Your task to perform on an android device: check data usage Image 0: 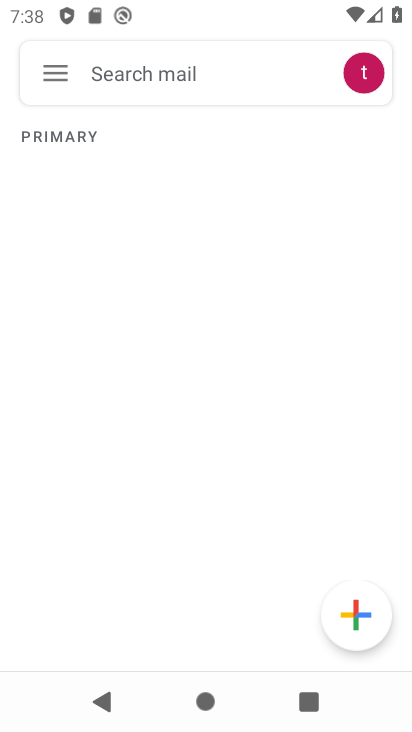
Step 0: drag from (202, 590) to (243, 131)
Your task to perform on an android device: check data usage Image 1: 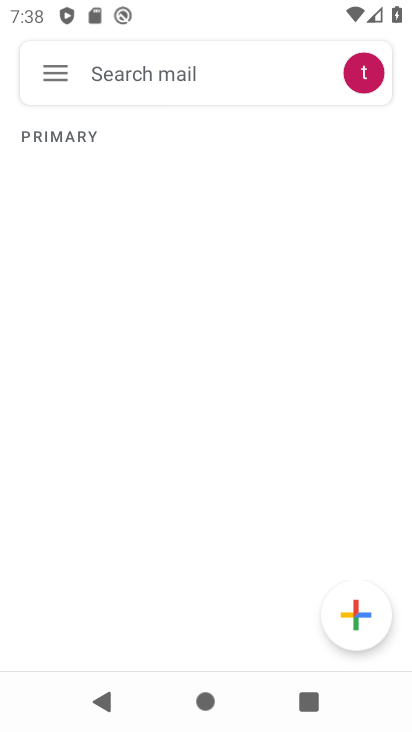
Step 1: press home button
Your task to perform on an android device: check data usage Image 2: 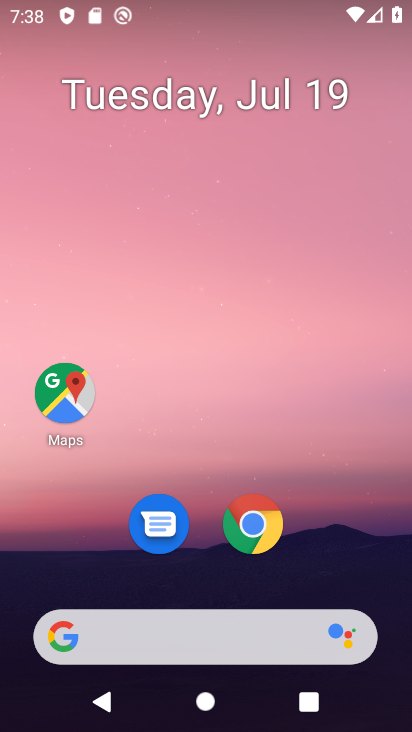
Step 2: drag from (338, 557) to (386, 46)
Your task to perform on an android device: check data usage Image 3: 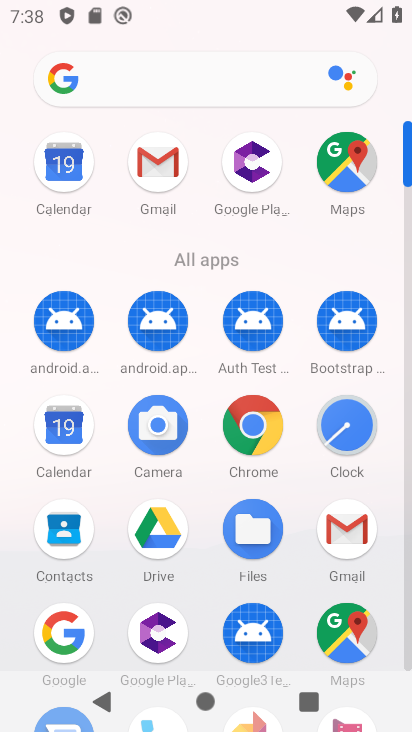
Step 3: drag from (199, 590) to (275, 146)
Your task to perform on an android device: check data usage Image 4: 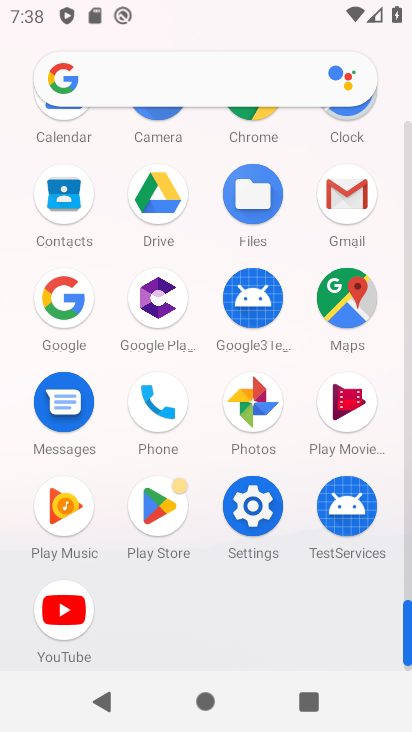
Step 4: click (256, 489)
Your task to perform on an android device: check data usage Image 5: 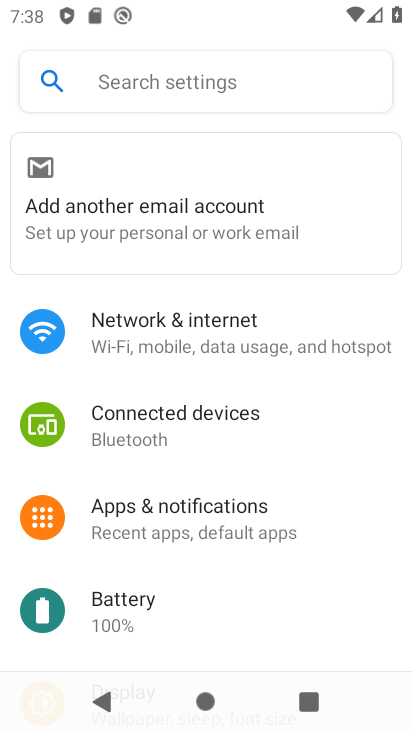
Step 5: click (260, 341)
Your task to perform on an android device: check data usage Image 6: 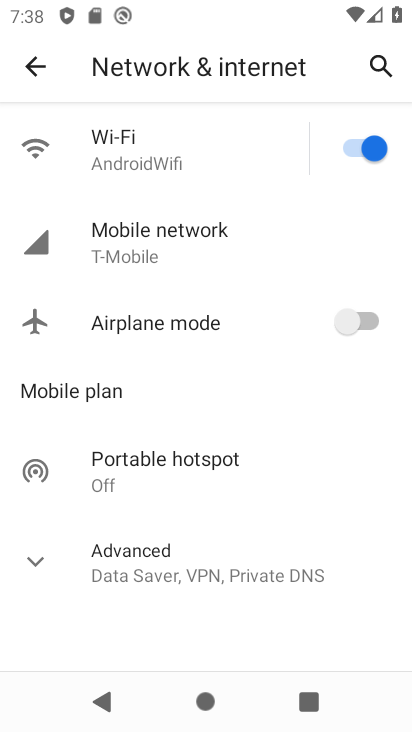
Step 6: click (258, 233)
Your task to perform on an android device: check data usage Image 7: 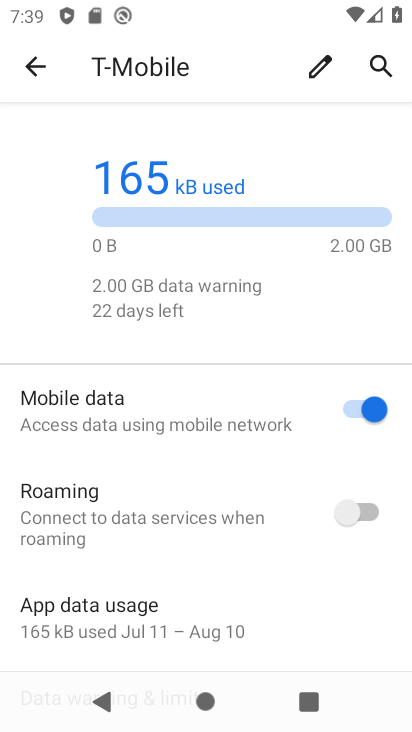
Step 7: task complete